Your task to perform on an android device: delete a single message in the gmail app Image 0: 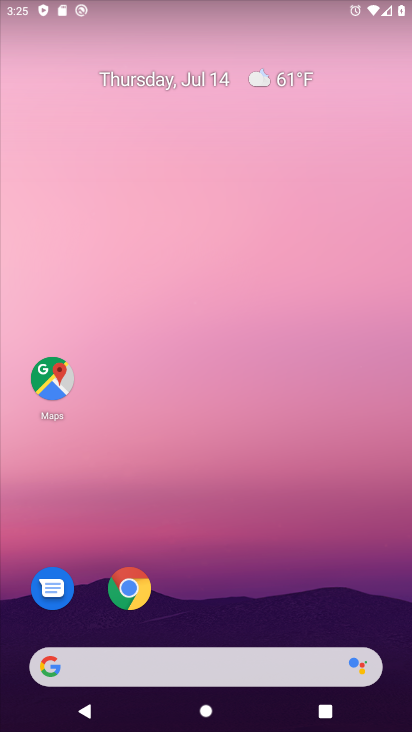
Step 0: press home button
Your task to perform on an android device: delete a single message in the gmail app Image 1: 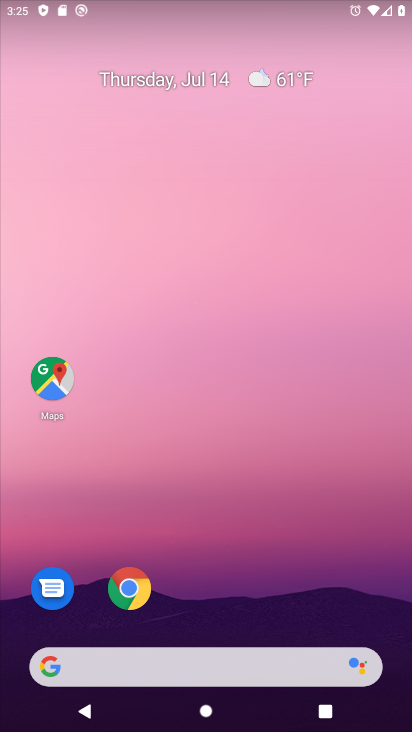
Step 1: drag from (264, 611) to (410, 30)
Your task to perform on an android device: delete a single message in the gmail app Image 2: 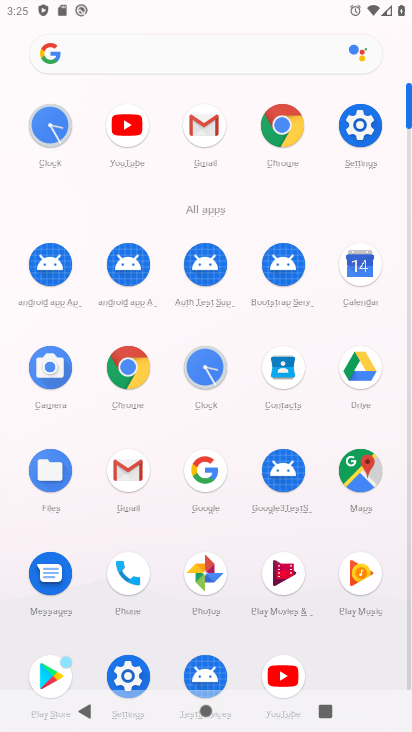
Step 2: click (190, 121)
Your task to perform on an android device: delete a single message in the gmail app Image 3: 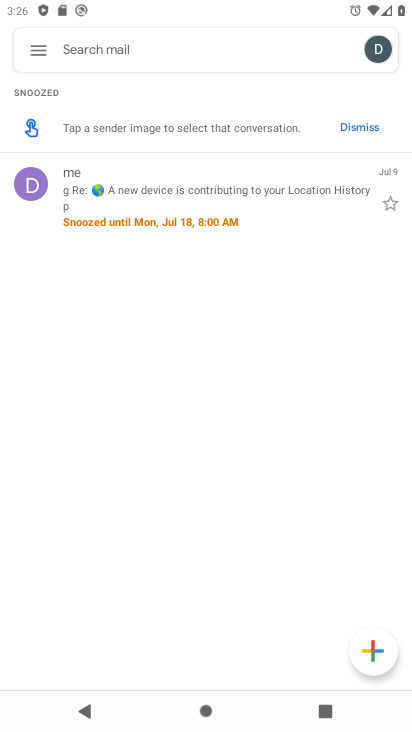
Step 3: click (121, 181)
Your task to perform on an android device: delete a single message in the gmail app Image 4: 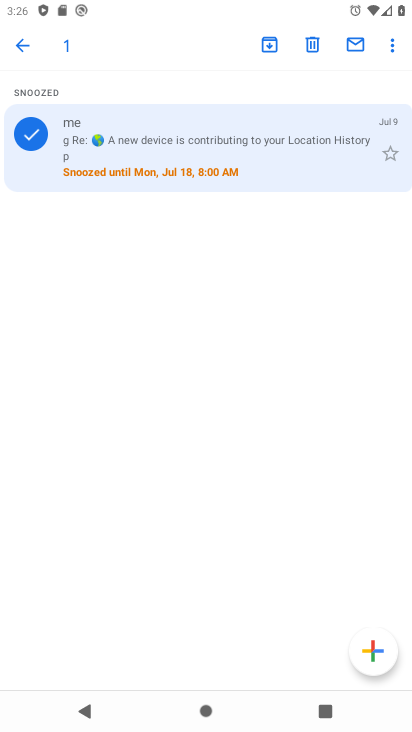
Step 4: click (315, 40)
Your task to perform on an android device: delete a single message in the gmail app Image 5: 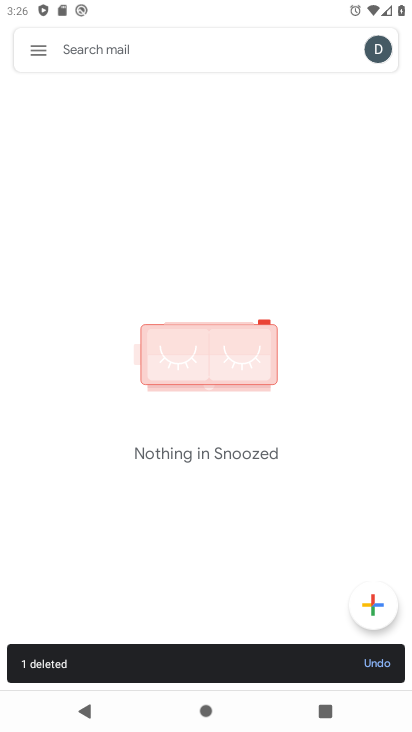
Step 5: task complete